Your task to perform on an android device: change the clock style Image 0: 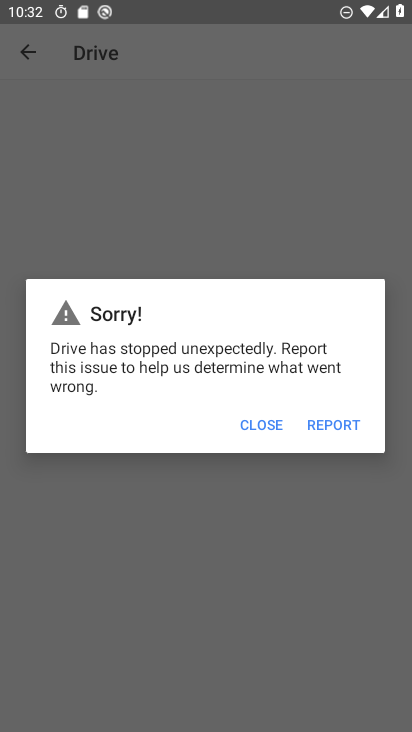
Step 0: press home button
Your task to perform on an android device: change the clock style Image 1: 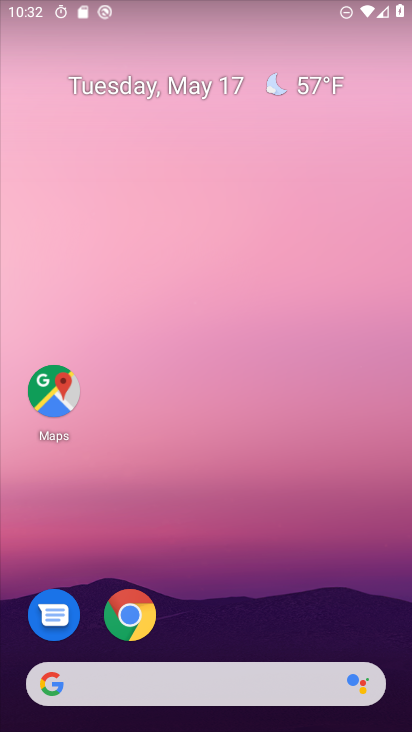
Step 1: drag from (252, 562) to (229, 30)
Your task to perform on an android device: change the clock style Image 2: 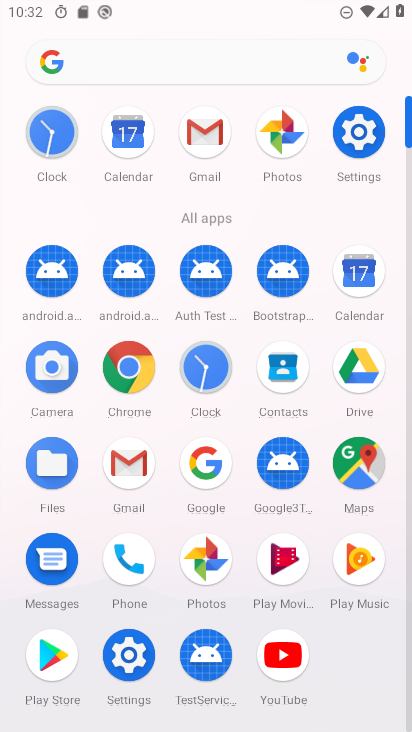
Step 2: click (56, 133)
Your task to perform on an android device: change the clock style Image 3: 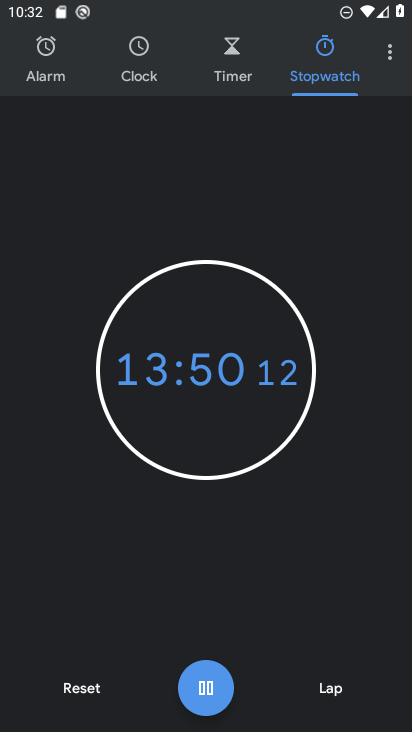
Step 3: click (392, 58)
Your task to perform on an android device: change the clock style Image 4: 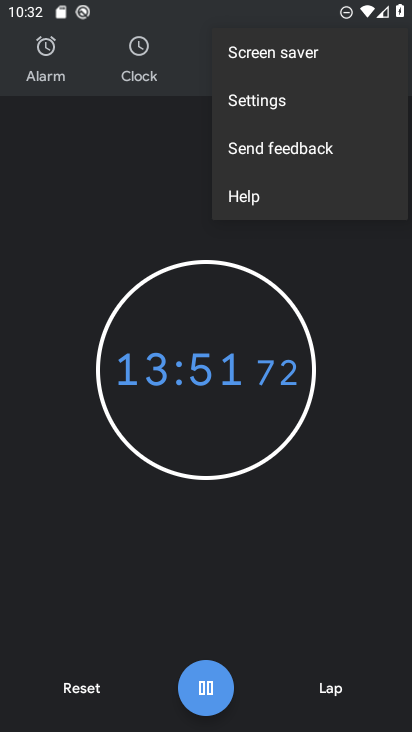
Step 4: click (288, 112)
Your task to perform on an android device: change the clock style Image 5: 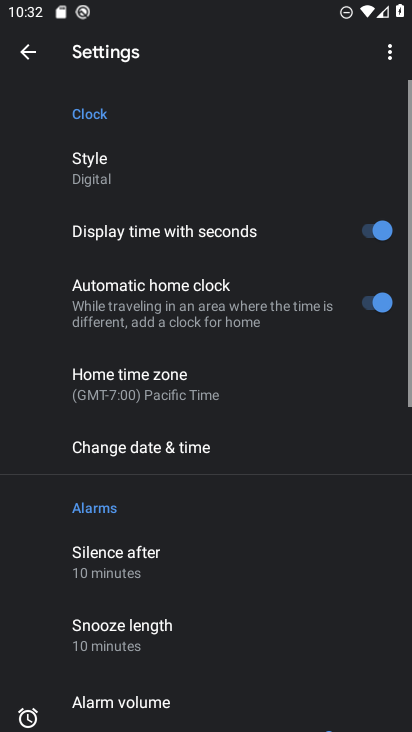
Step 5: click (114, 164)
Your task to perform on an android device: change the clock style Image 6: 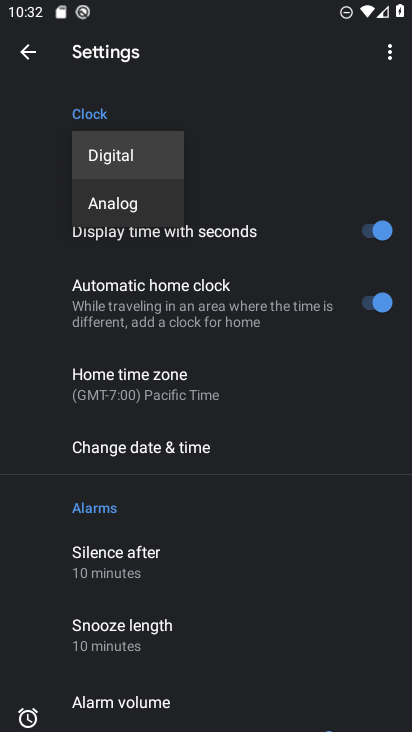
Step 6: click (145, 195)
Your task to perform on an android device: change the clock style Image 7: 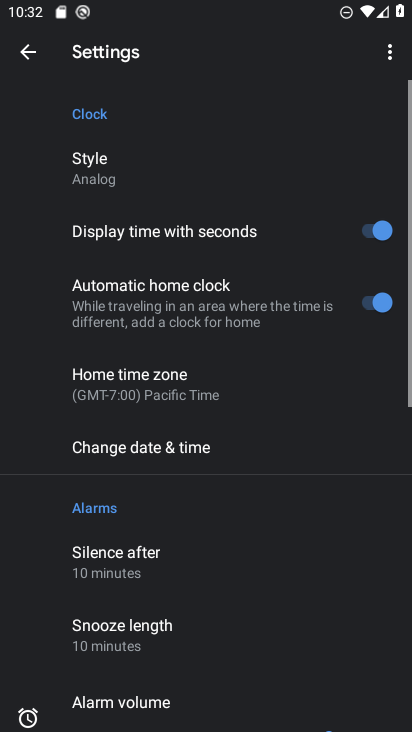
Step 7: task complete